Your task to perform on an android device: turn pop-ups off in chrome Image 0: 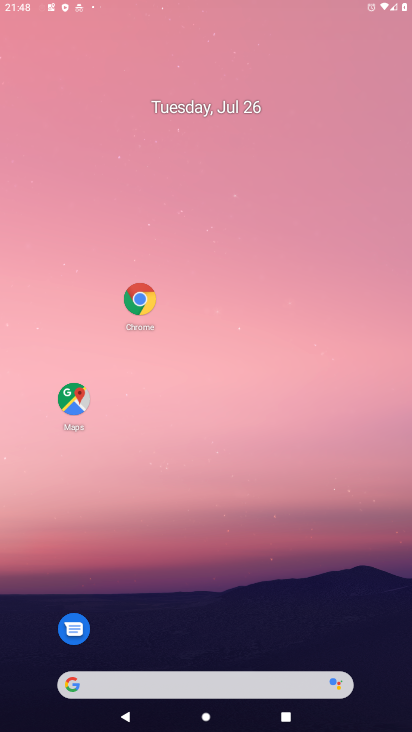
Step 0: drag from (261, 623) to (215, 322)
Your task to perform on an android device: turn pop-ups off in chrome Image 1: 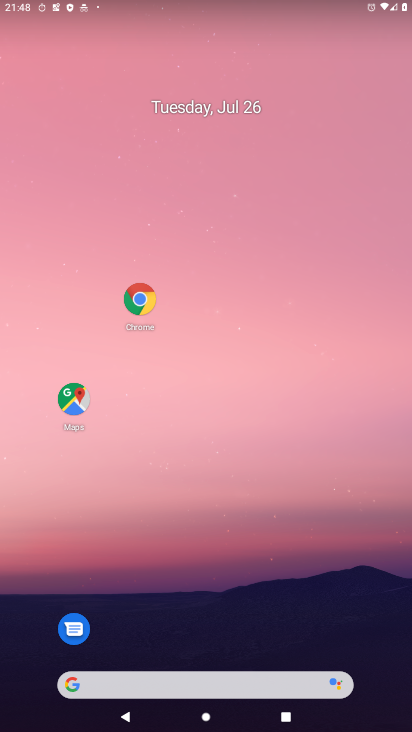
Step 1: drag from (280, 319) to (256, 158)
Your task to perform on an android device: turn pop-ups off in chrome Image 2: 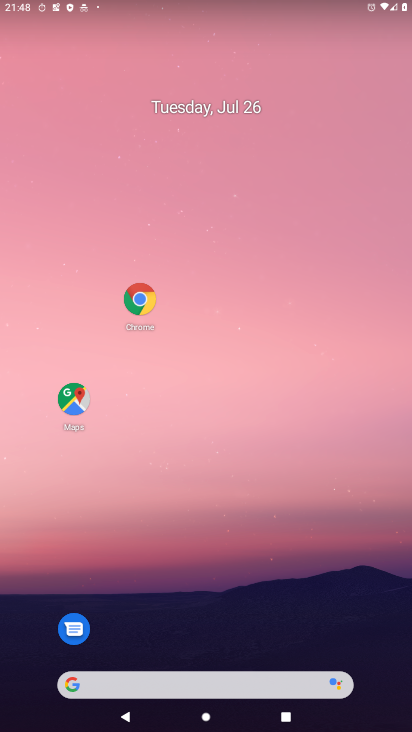
Step 2: drag from (299, 460) to (279, 121)
Your task to perform on an android device: turn pop-ups off in chrome Image 3: 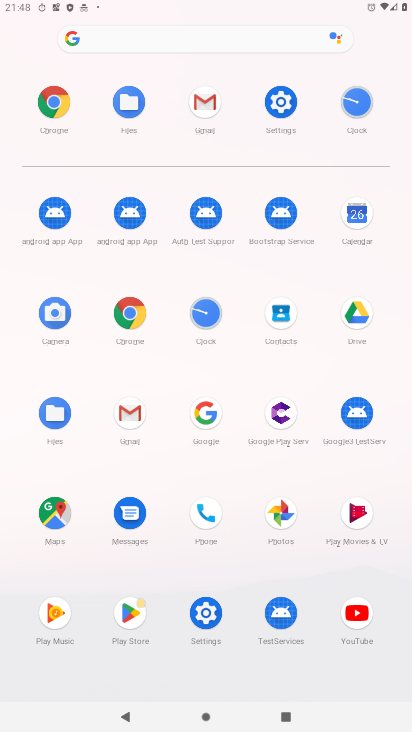
Step 3: drag from (265, 511) to (251, 177)
Your task to perform on an android device: turn pop-ups off in chrome Image 4: 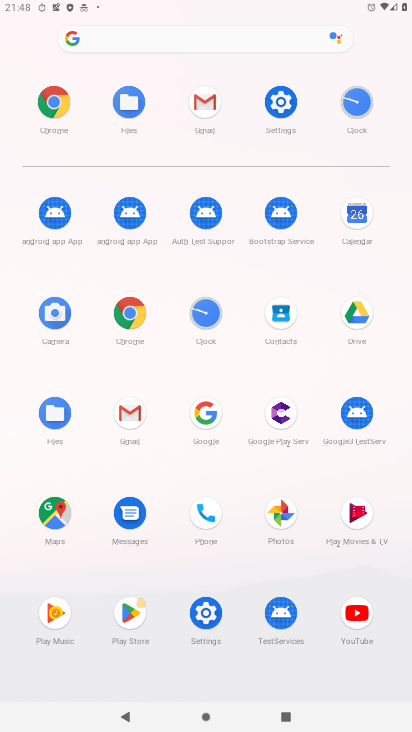
Step 4: click (59, 102)
Your task to perform on an android device: turn pop-ups off in chrome Image 5: 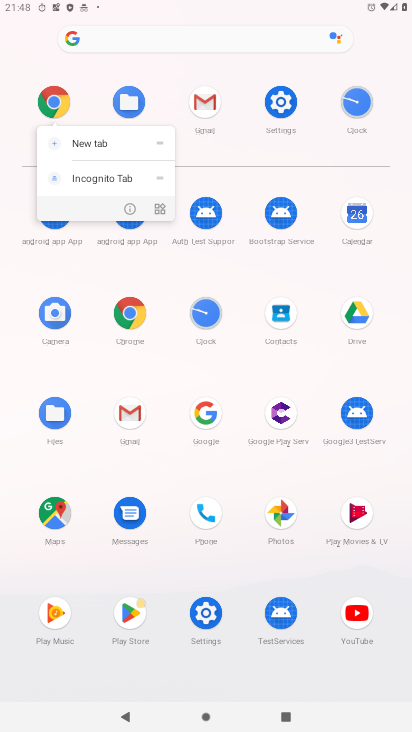
Step 5: click (59, 102)
Your task to perform on an android device: turn pop-ups off in chrome Image 6: 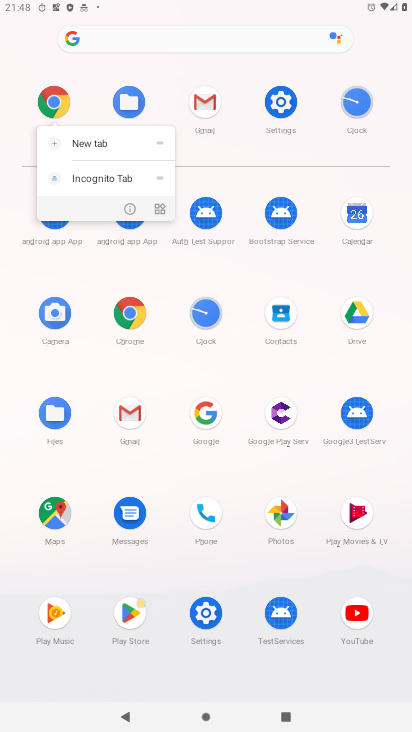
Step 6: click (59, 102)
Your task to perform on an android device: turn pop-ups off in chrome Image 7: 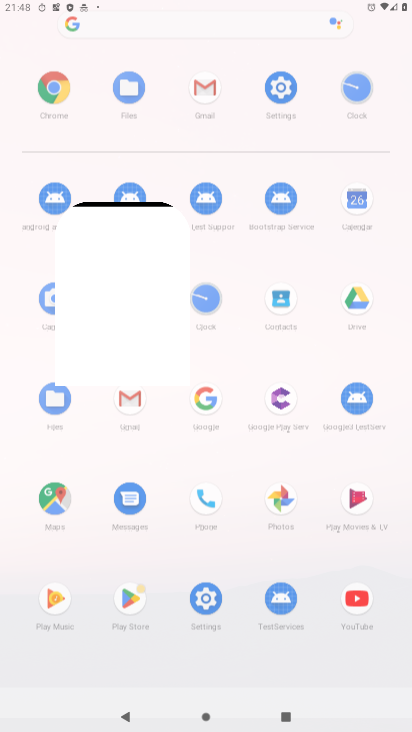
Step 7: click (59, 102)
Your task to perform on an android device: turn pop-ups off in chrome Image 8: 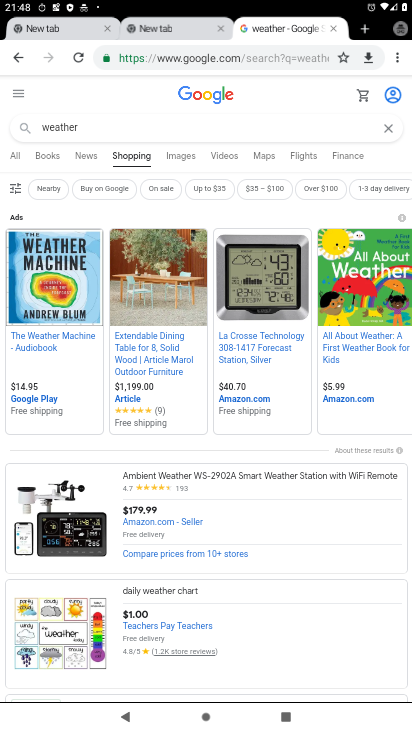
Step 8: drag from (397, 55) to (288, 388)
Your task to perform on an android device: turn pop-ups off in chrome Image 9: 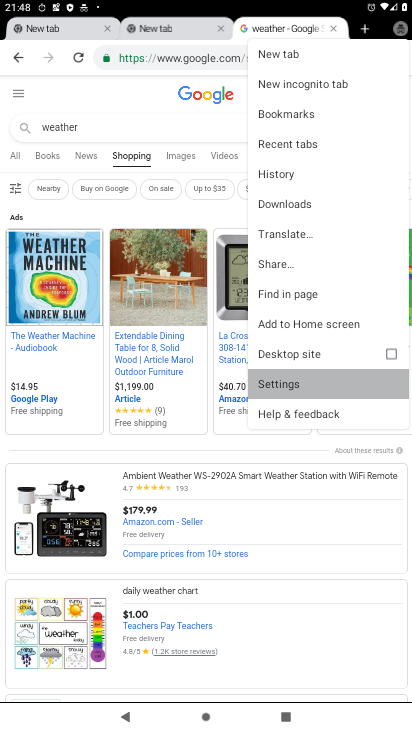
Step 9: click (294, 379)
Your task to perform on an android device: turn pop-ups off in chrome Image 10: 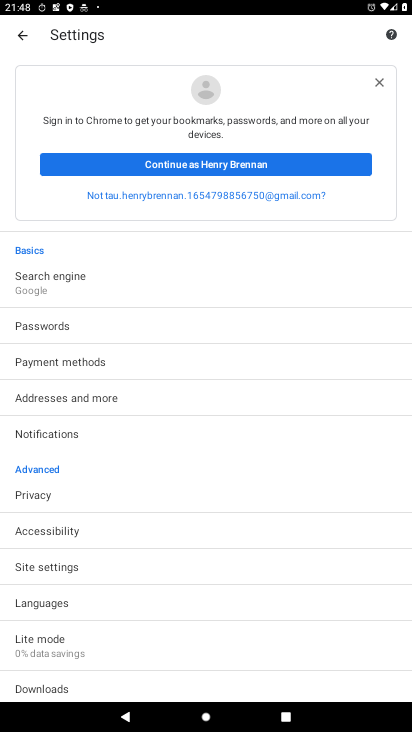
Step 10: drag from (82, 461) to (76, 127)
Your task to perform on an android device: turn pop-ups off in chrome Image 11: 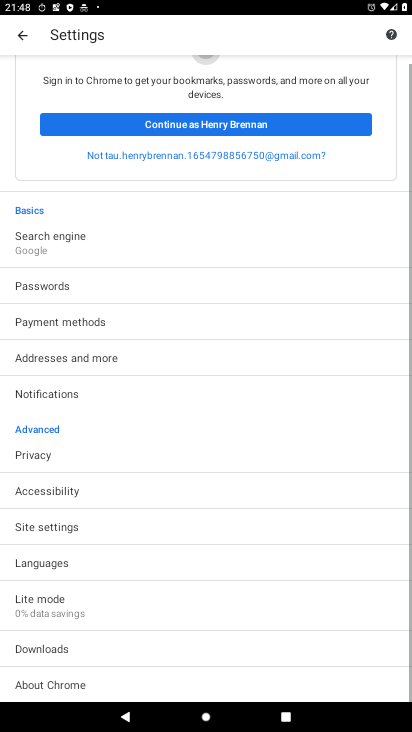
Step 11: drag from (95, 301) to (95, 225)
Your task to perform on an android device: turn pop-ups off in chrome Image 12: 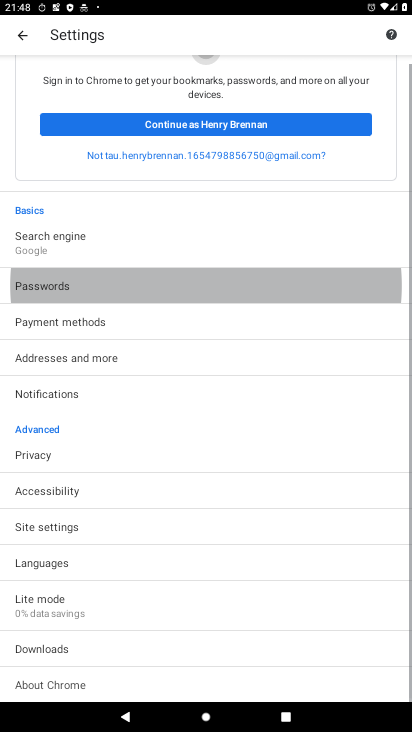
Step 12: drag from (129, 348) to (121, 260)
Your task to perform on an android device: turn pop-ups off in chrome Image 13: 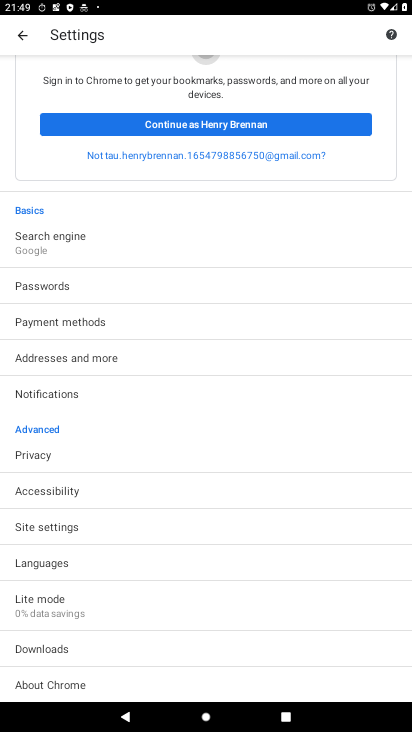
Step 13: click (45, 526)
Your task to perform on an android device: turn pop-ups off in chrome Image 14: 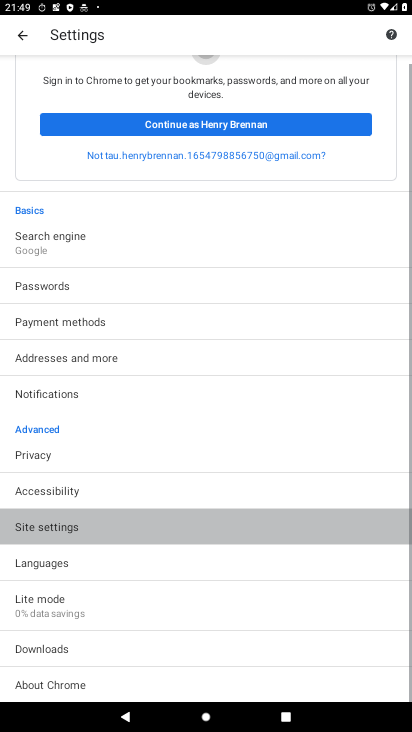
Step 14: click (44, 526)
Your task to perform on an android device: turn pop-ups off in chrome Image 15: 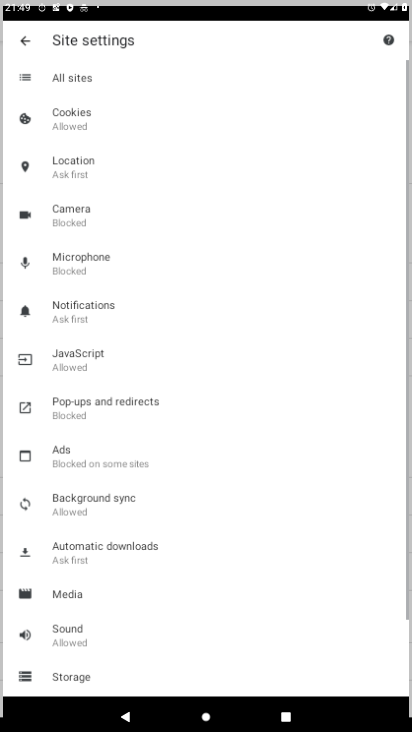
Step 15: click (43, 525)
Your task to perform on an android device: turn pop-ups off in chrome Image 16: 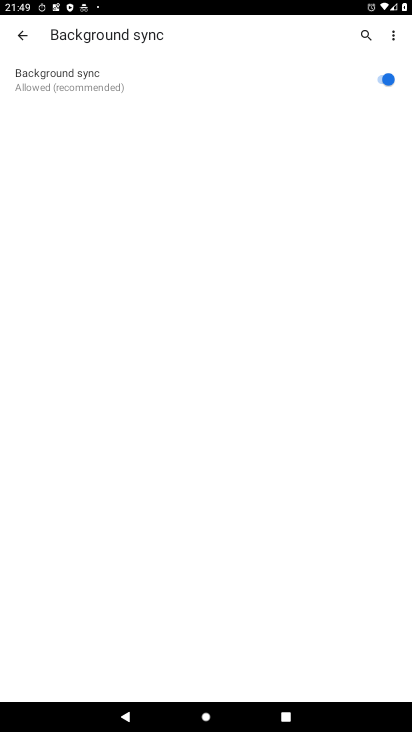
Step 16: click (18, 35)
Your task to perform on an android device: turn pop-ups off in chrome Image 17: 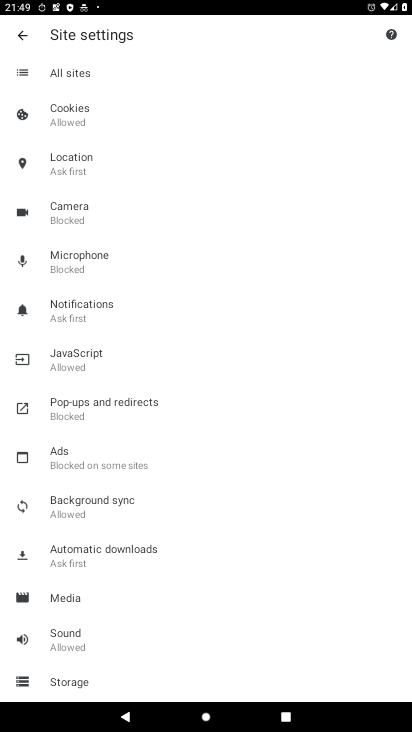
Step 17: click (86, 396)
Your task to perform on an android device: turn pop-ups off in chrome Image 18: 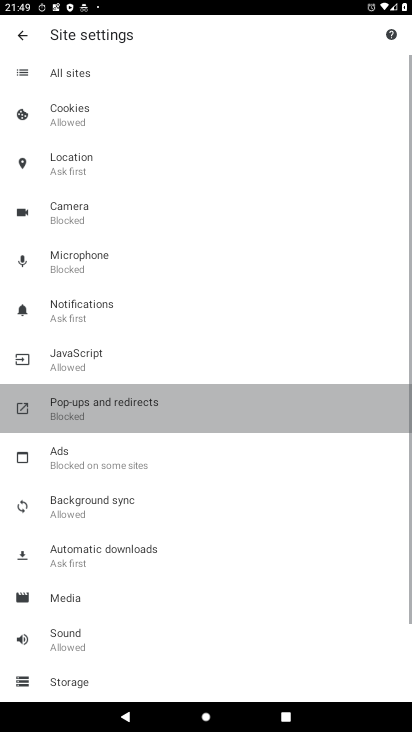
Step 18: click (90, 411)
Your task to perform on an android device: turn pop-ups off in chrome Image 19: 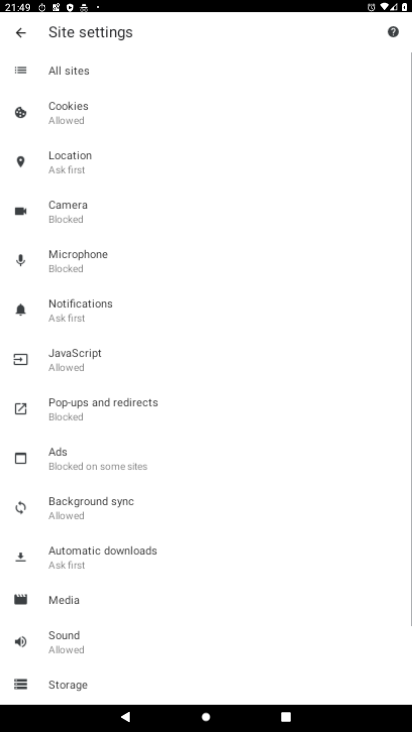
Step 19: click (104, 434)
Your task to perform on an android device: turn pop-ups off in chrome Image 20: 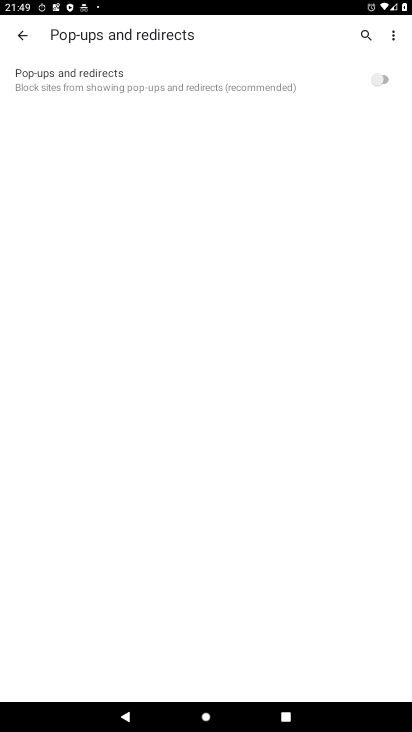
Step 20: task complete